Your task to perform on an android device: turn off data saver in the chrome app Image 0: 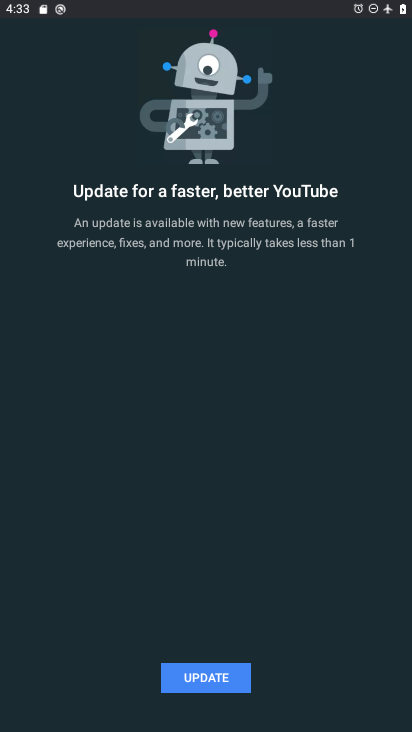
Step 0: press home button
Your task to perform on an android device: turn off data saver in the chrome app Image 1: 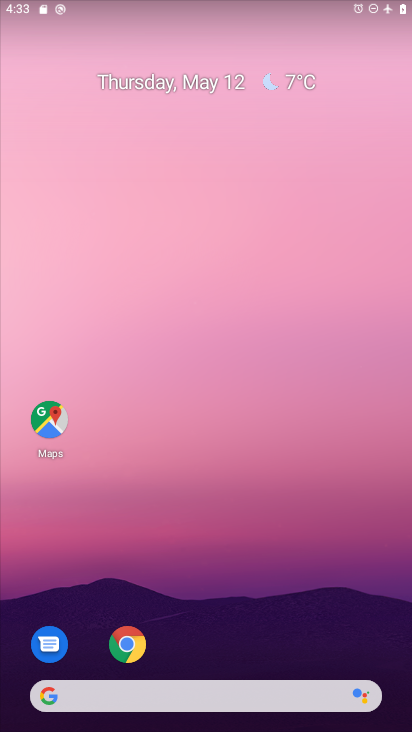
Step 1: drag from (281, 603) to (285, 11)
Your task to perform on an android device: turn off data saver in the chrome app Image 2: 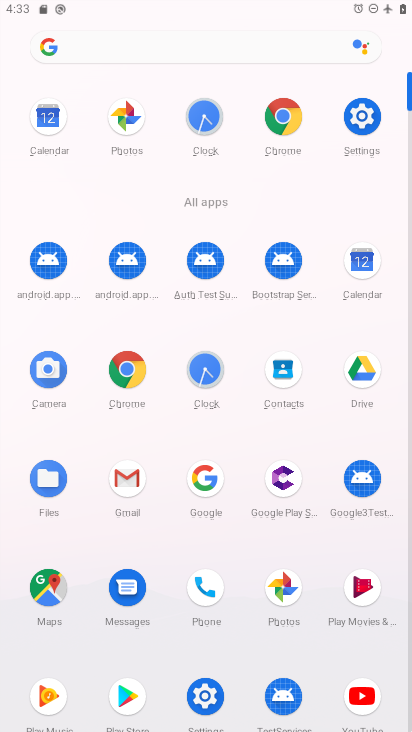
Step 2: click (124, 377)
Your task to perform on an android device: turn off data saver in the chrome app Image 3: 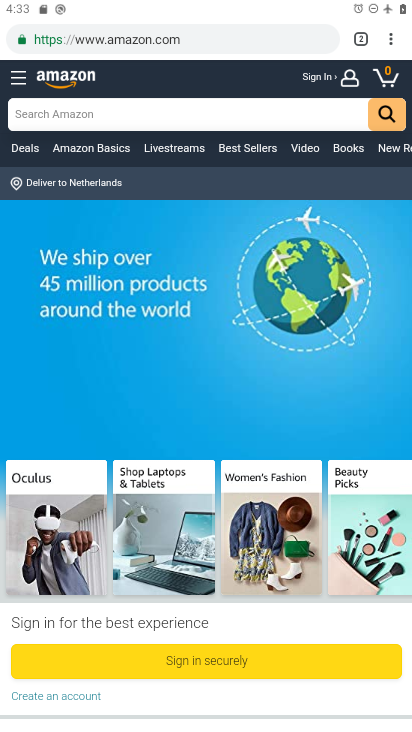
Step 3: click (397, 44)
Your task to perform on an android device: turn off data saver in the chrome app Image 4: 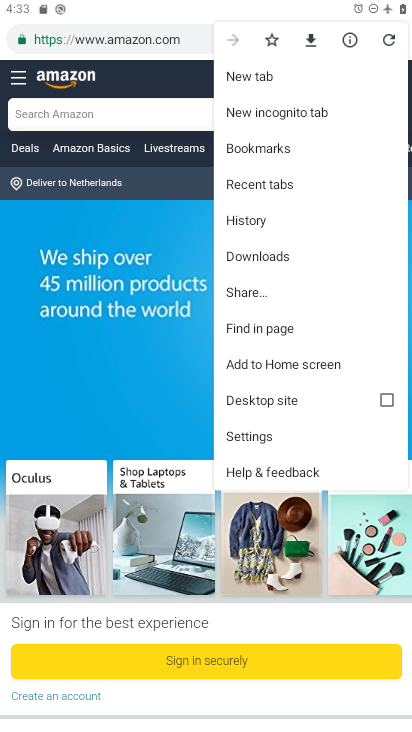
Step 4: click (263, 434)
Your task to perform on an android device: turn off data saver in the chrome app Image 5: 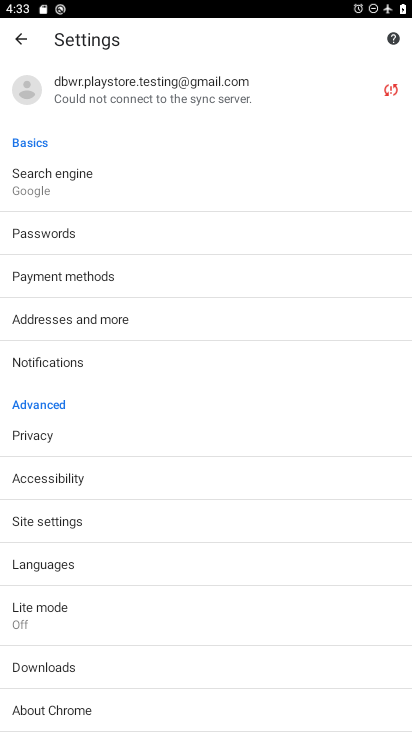
Step 5: click (53, 610)
Your task to perform on an android device: turn off data saver in the chrome app Image 6: 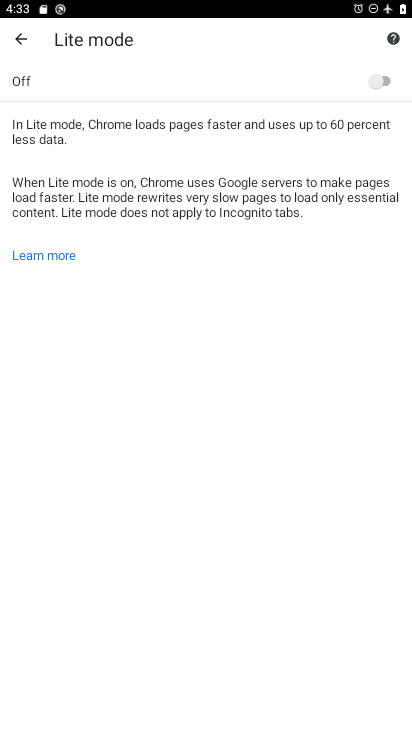
Step 6: task complete